Your task to perform on an android device: Open Wikipedia Image 0: 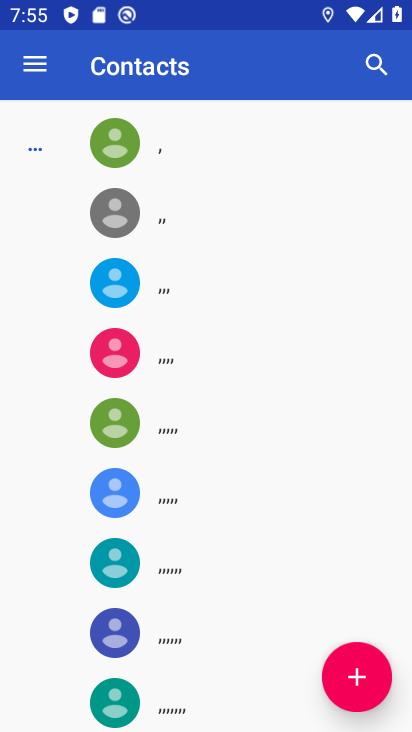
Step 0: press home button
Your task to perform on an android device: Open Wikipedia Image 1: 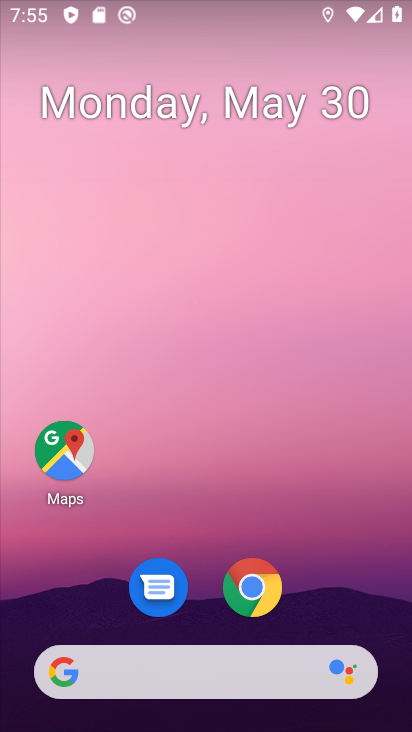
Step 1: click (260, 591)
Your task to perform on an android device: Open Wikipedia Image 2: 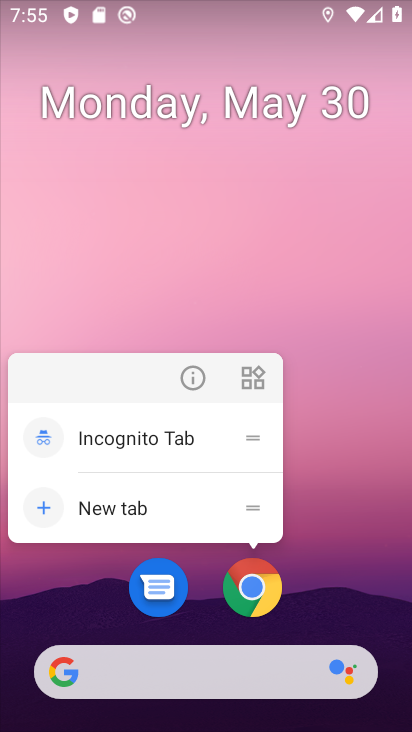
Step 2: click (266, 596)
Your task to perform on an android device: Open Wikipedia Image 3: 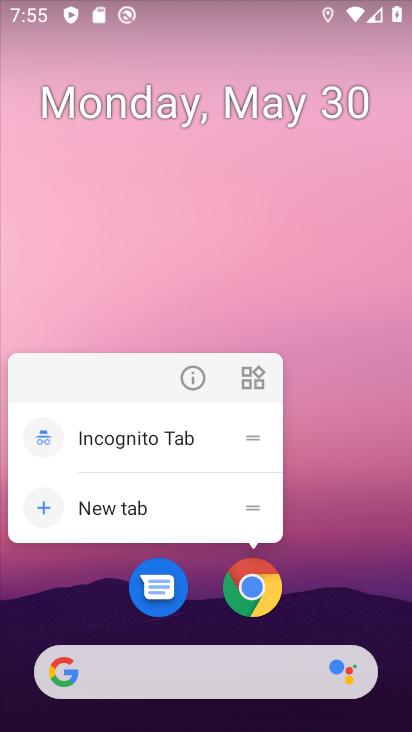
Step 3: click (243, 600)
Your task to perform on an android device: Open Wikipedia Image 4: 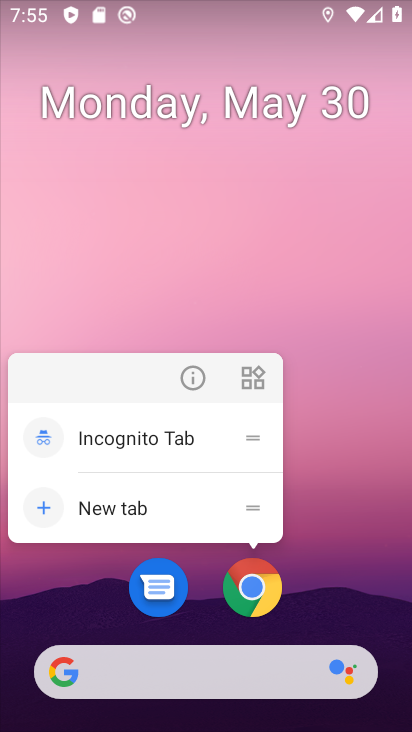
Step 4: click (253, 586)
Your task to perform on an android device: Open Wikipedia Image 5: 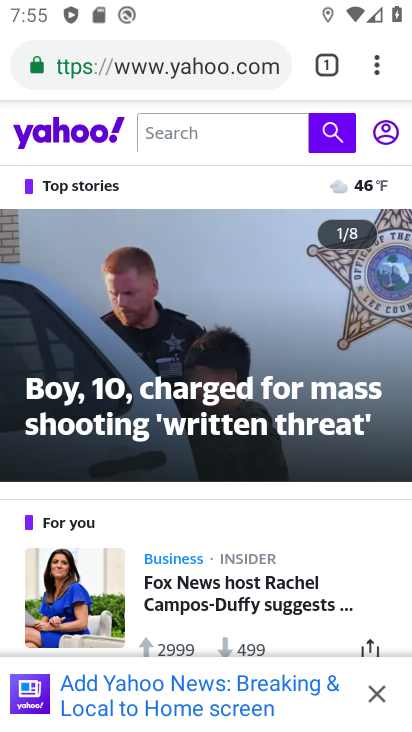
Step 5: drag from (378, 62) to (244, 126)
Your task to perform on an android device: Open Wikipedia Image 6: 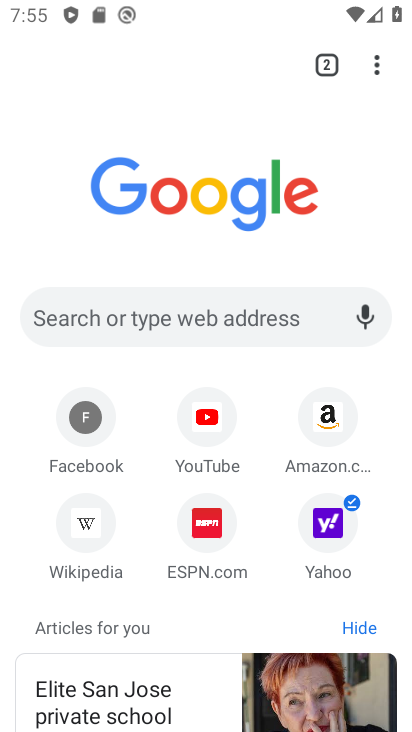
Step 6: click (81, 534)
Your task to perform on an android device: Open Wikipedia Image 7: 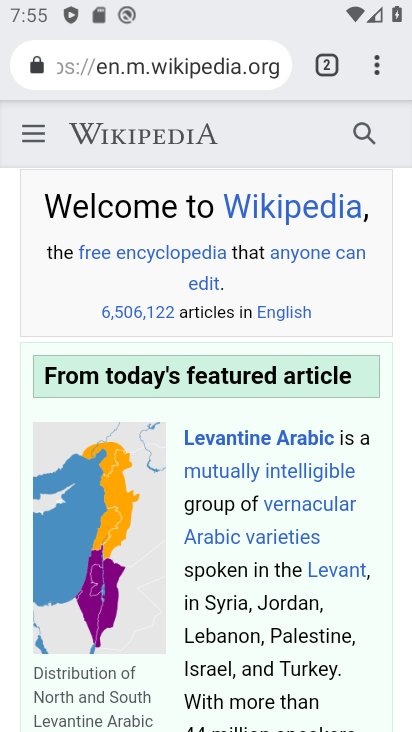
Step 7: task complete